Your task to perform on an android device: Search for the best rated 150-piece drill bit set on Aliexpress. Image 0: 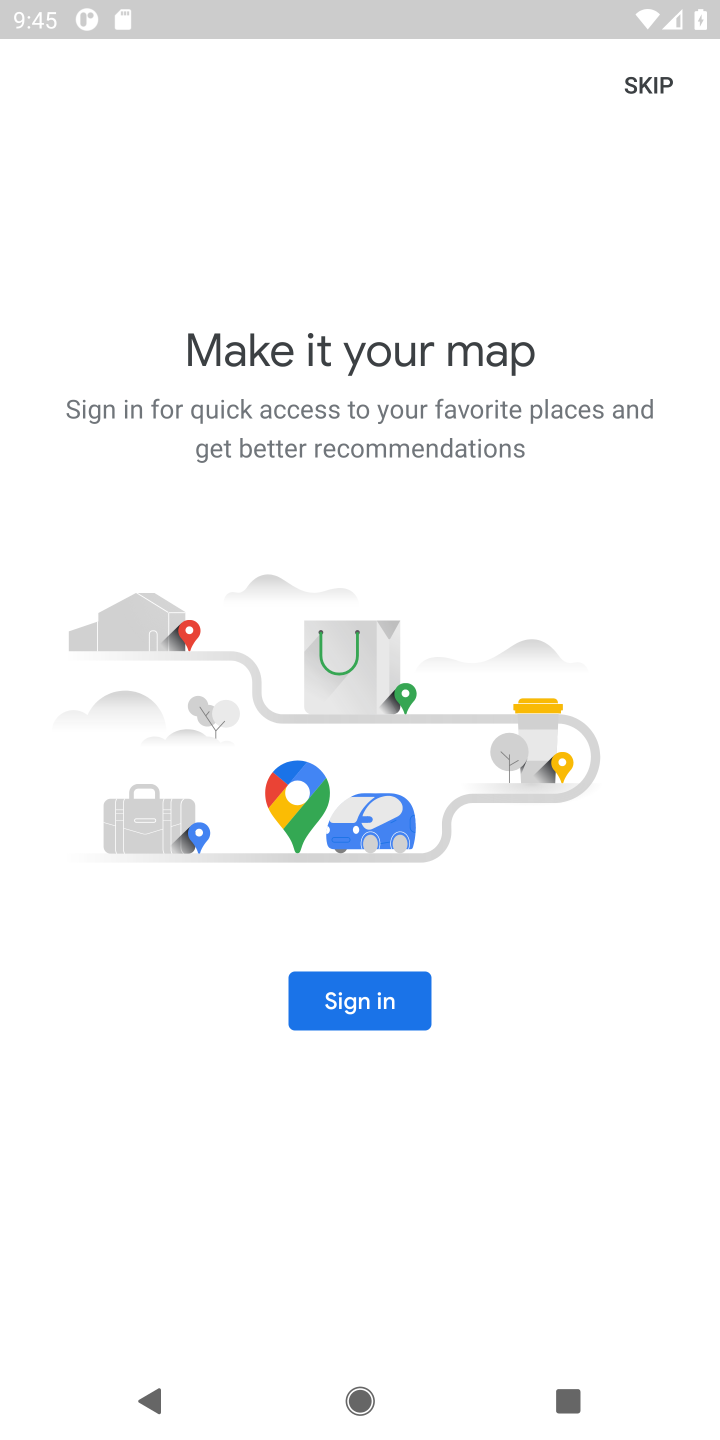
Step 0: press home button
Your task to perform on an android device: Search for the best rated 150-piece drill bit set on Aliexpress. Image 1: 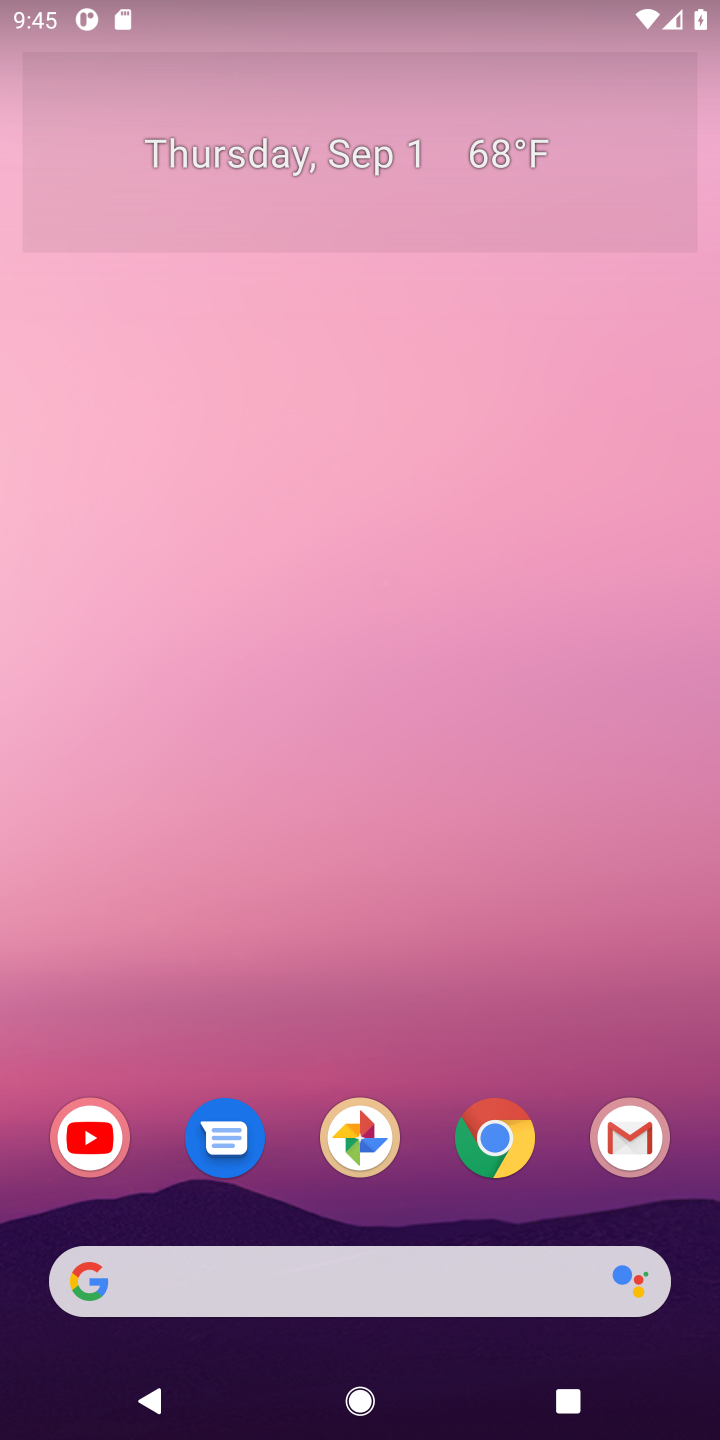
Step 1: click (238, 1284)
Your task to perform on an android device: Search for the best rated 150-piece drill bit set on Aliexpress. Image 2: 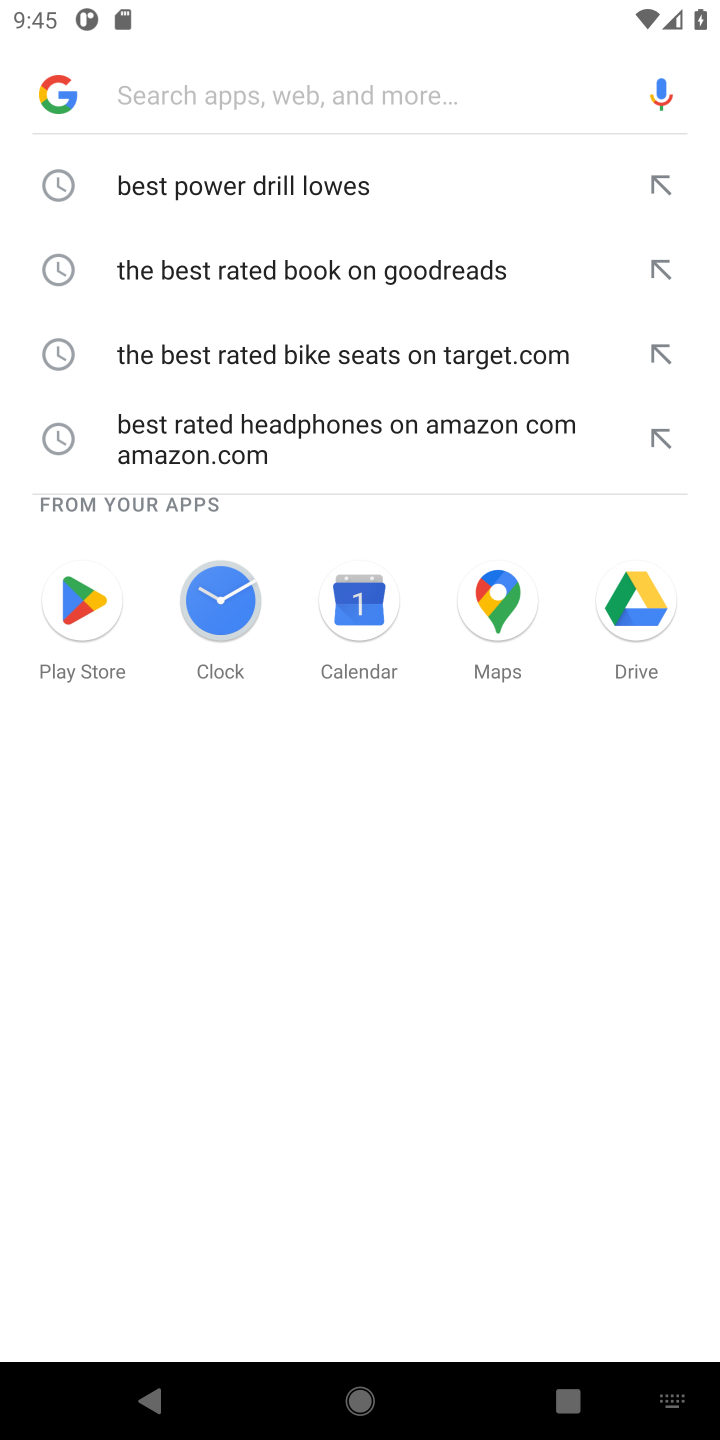
Step 2: type " the best rated 150-piece drill bit set on Aliexpress"
Your task to perform on an android device: Search for the best rated 150-piece drill bit set on Aliexpress. Image 3: 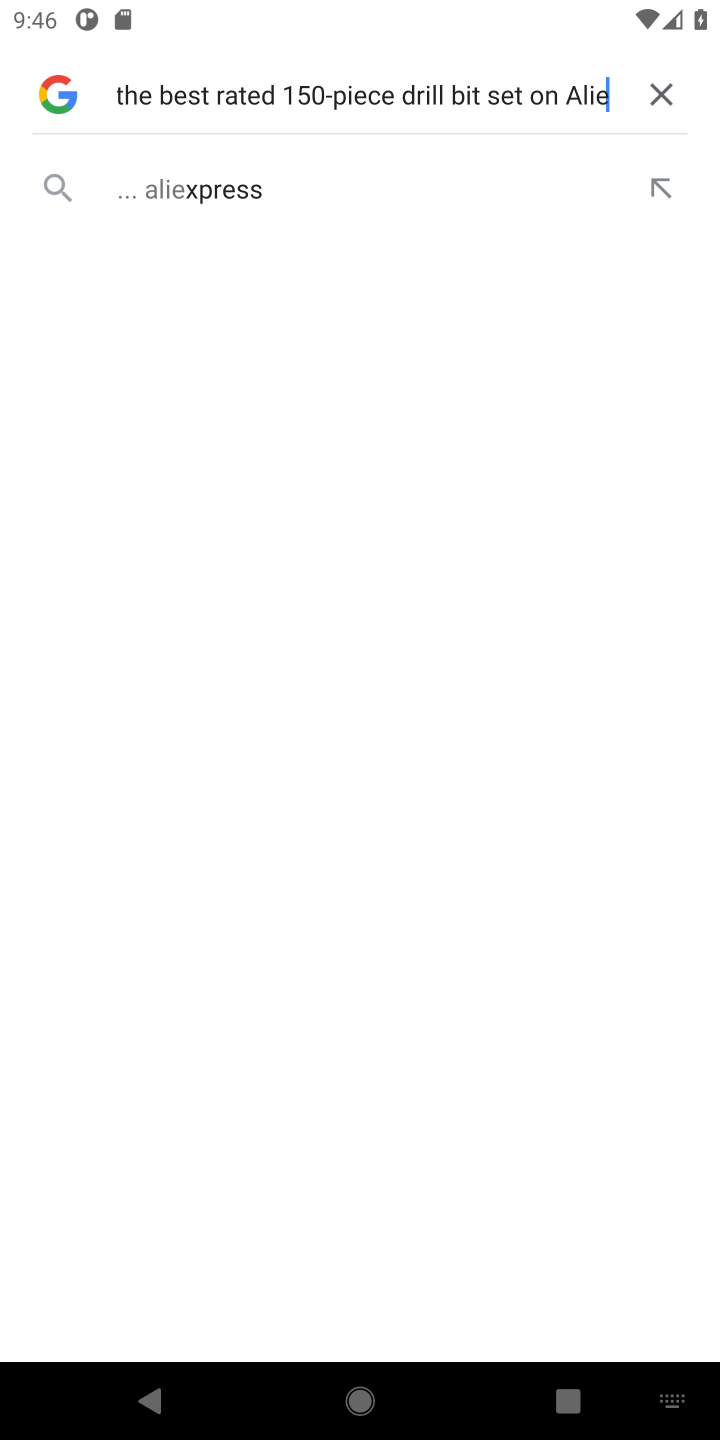
Step 3: click (234, 182)
Your task to perform on an android device: Search for the best rated 150-piece drill bit set on Aliexpress. Image 4: 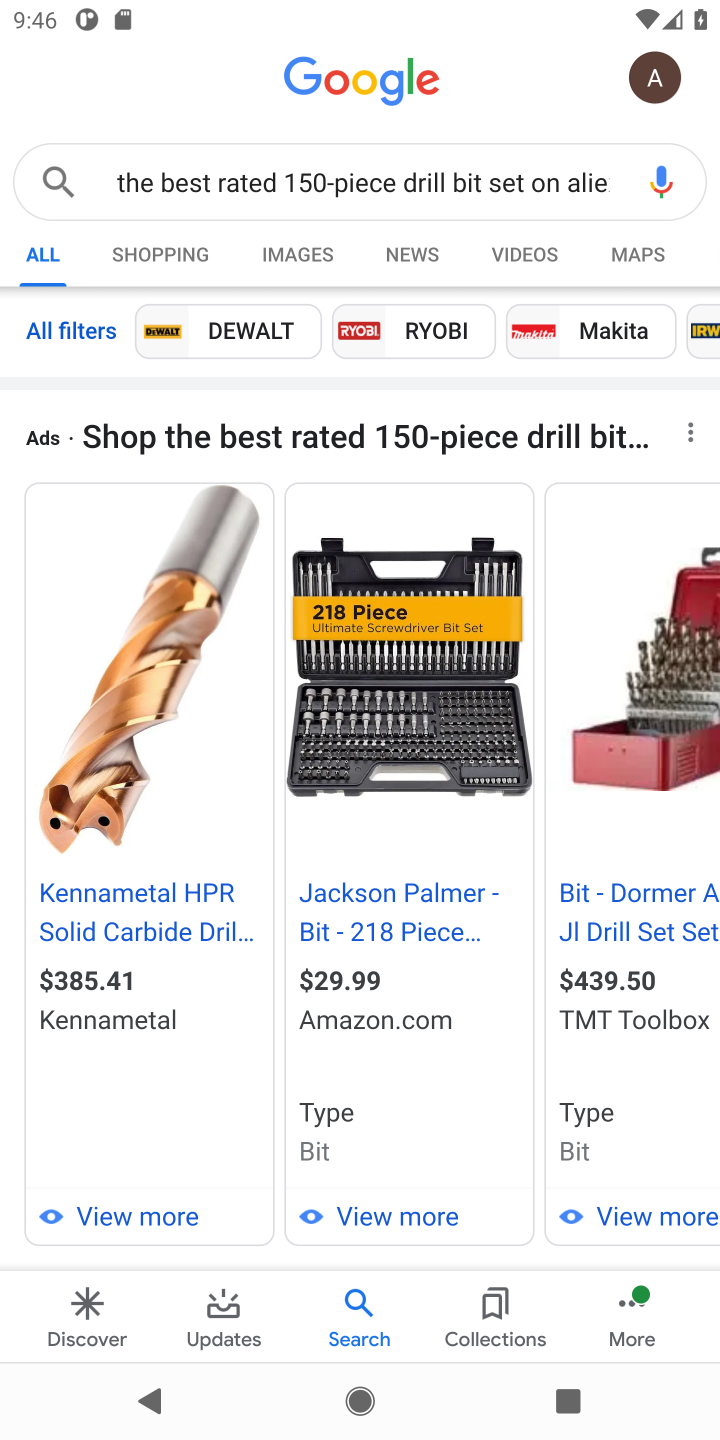
Step 4: click (154, 891)
Your task to perform on an android device: Search for the best rated 150-piece drill bit set on Aliexpress. Image 5: 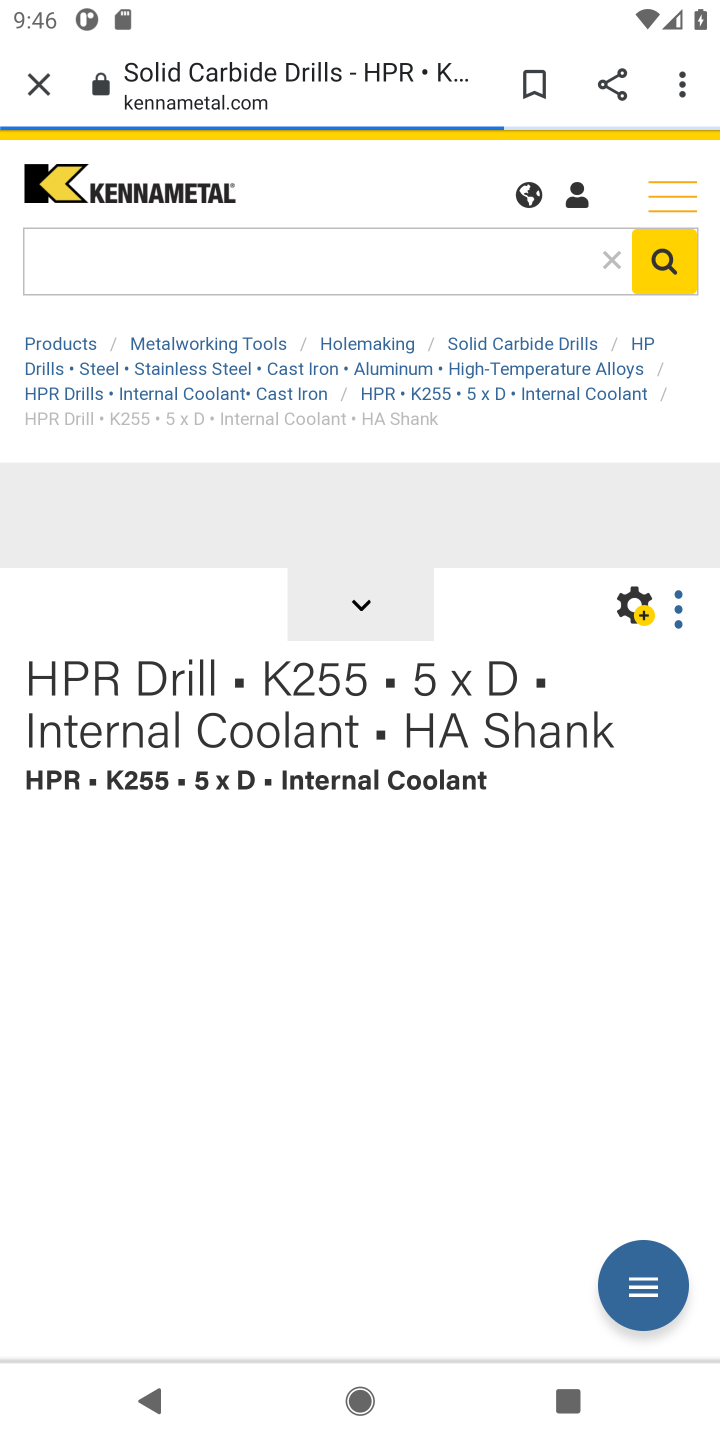
Step 5: task complete